Your task to perform on an android device: make emails show in primary in the gmail app Image 0: 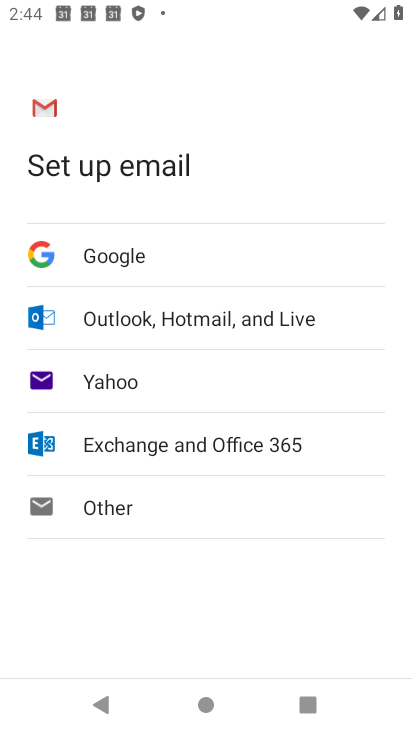
Step 0: drag from (151, 571) to (216, 240)
Your task to perform on an android device: make emails show in primary in the gmail app Image 1: 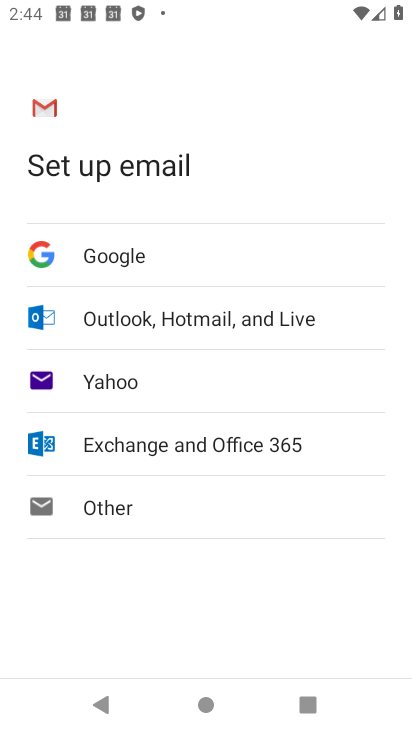
Step 1: drag from (234, 592) to (240, 336)
Your task to perform on an android device: make emails show in primary in the gmail app Image 2: 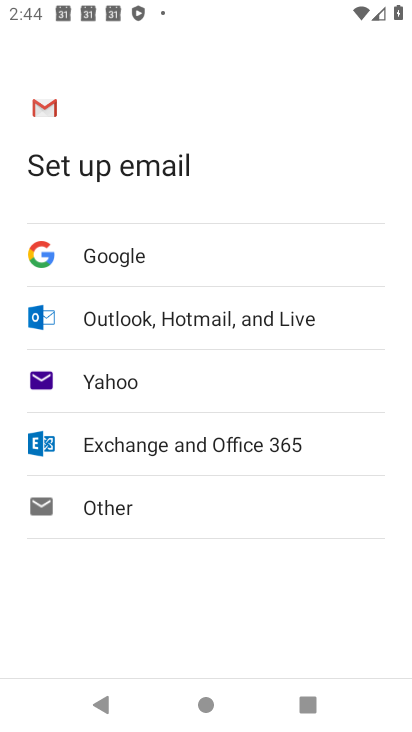
Step 2: press home button
Your task to perform on an android device: make emails show in primary in the gmail app Image 3: 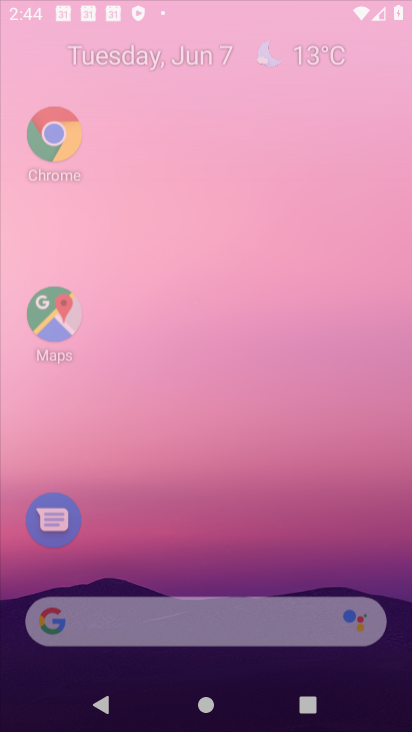
Step 3: drag from (203, 556) to (246, 92)
Your task to perform on an android device: make emails show in primary in the gmail app Image 4: 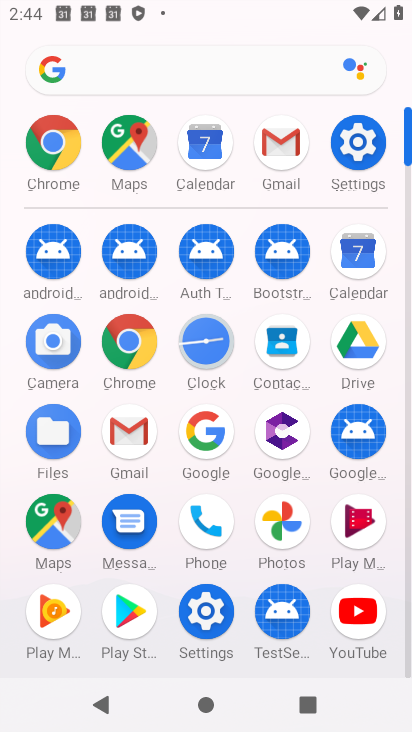
Step 4: click (124, 414)
Your task to perform on an android device: make emails show in primary in the gmail app Image 5: 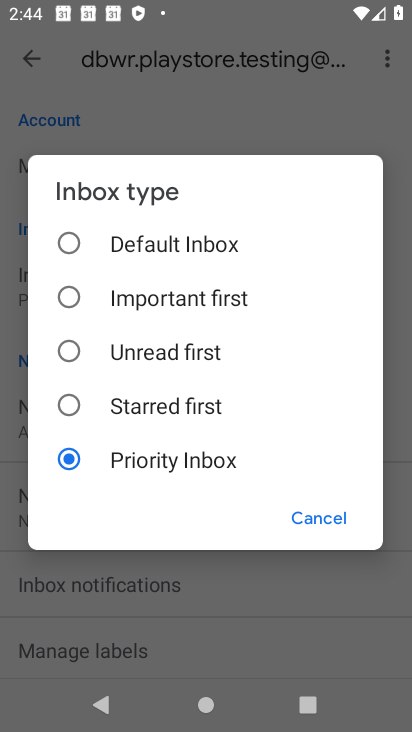
Step 5: click (339, 507)
Your task to perform on an android device: make emails show in primary in the gmail app Image 6: 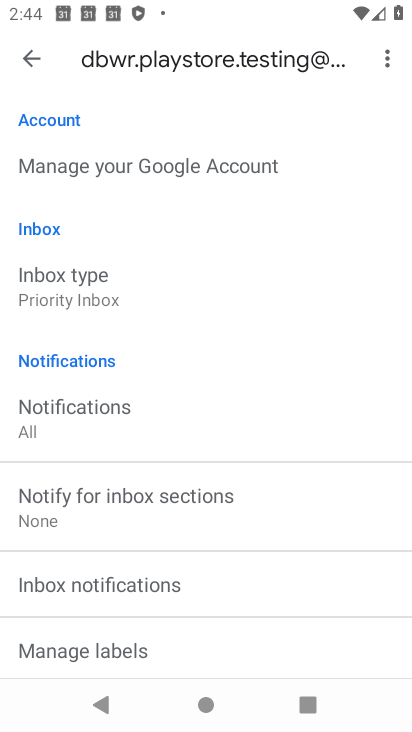
Step 6: click (43, 60)
Your task to perform on an android device: make emails show in primary in the gmail app Image 7: 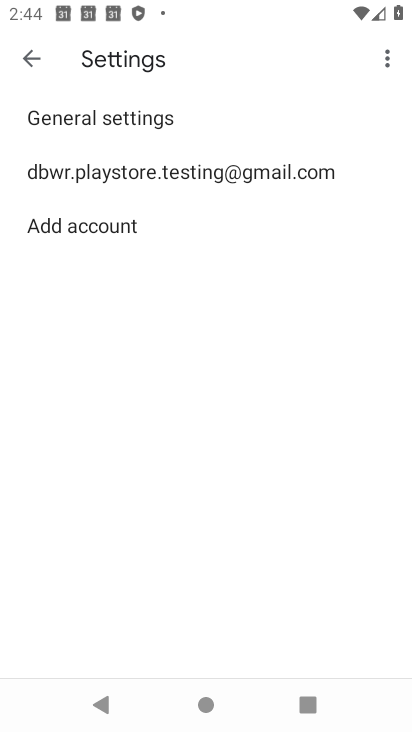
Step 7: click (35, 56)
Your task to perform on an android device: make emails show in primary in the gmail app Image 8: 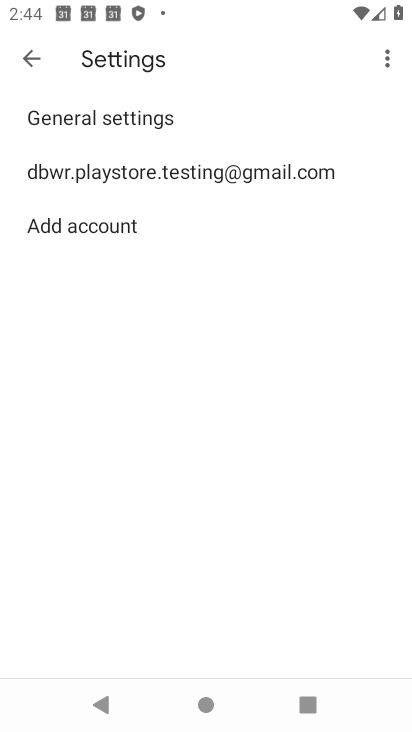
Step 8: click (31, 55)
Your task to perform on an android device: make emails show in primary in the gmail app Image 9: 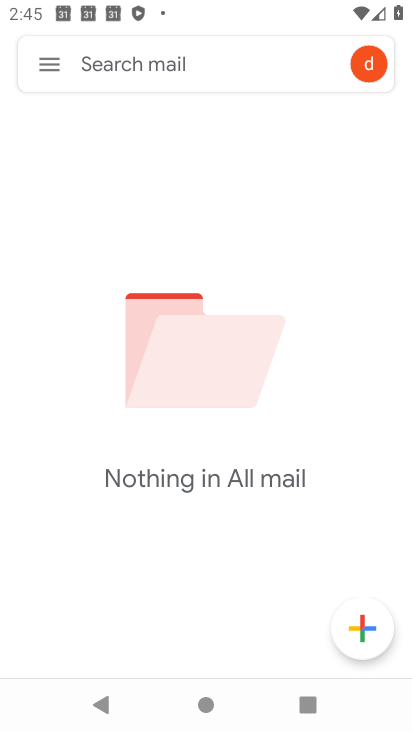
Step 9: click (48, 57)
Your task to perform on an android device: make emails show in primary in the gmail app Image 10: 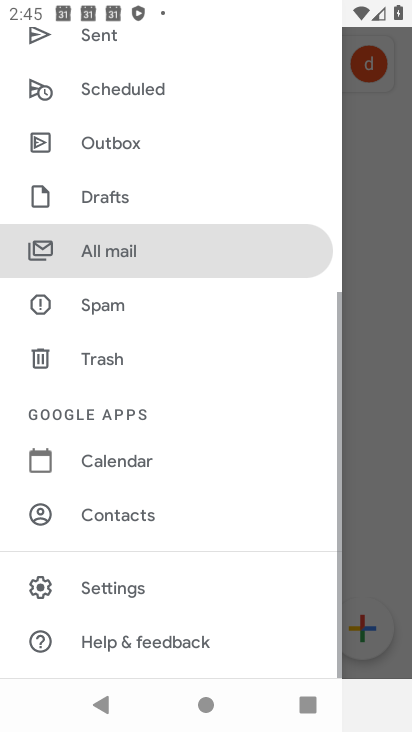
Step 10: drag from (121, 118) to (410, 663)
Your task to perform on an android device: make emails show in primary in the gmail app Image 11: 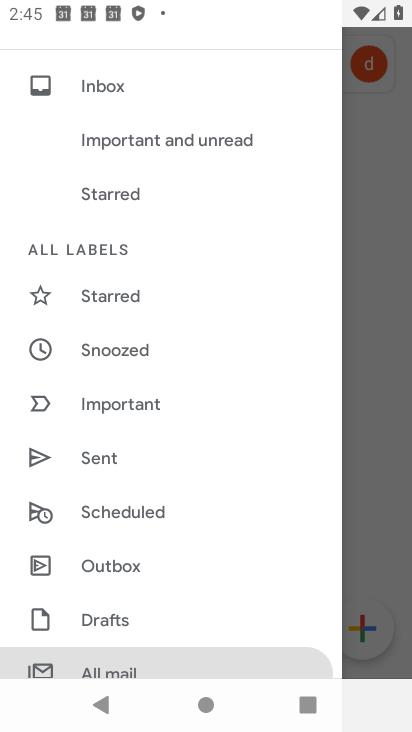
Step 11: click (83, 96)
Your task to perform on an android device: make emails show in primary in the gmail app Image 12: 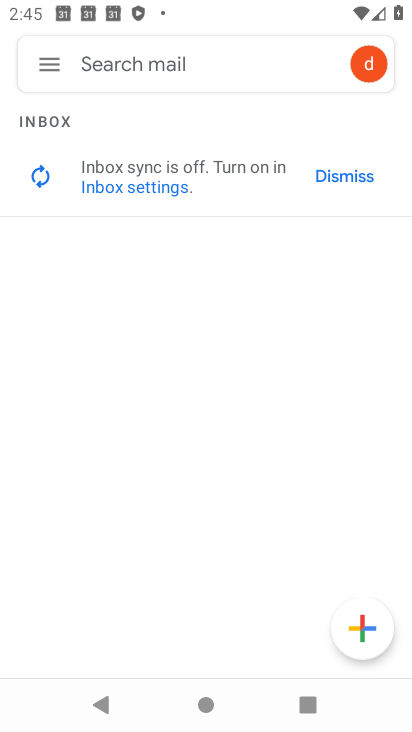
Step 12: task complete